Your task to perform on an android device: check data usage Image 0: 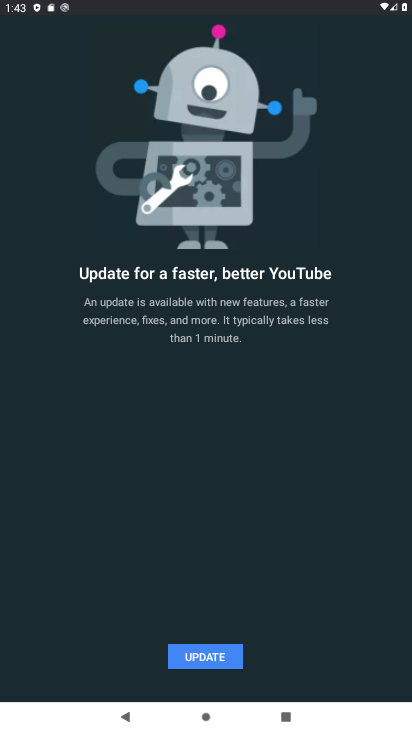
Step 0: press home button
Your task to perform on an android device: check data usage Image 1: 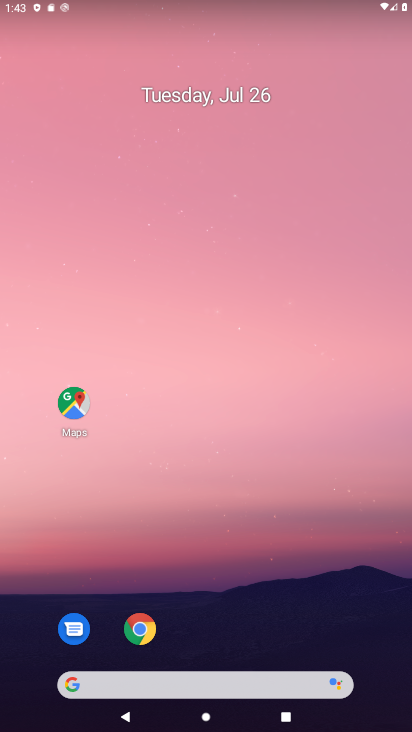
Step 1: drag from (339, 657) to (319, 154)
Your task to perform on an android device: check data usage Image 2: 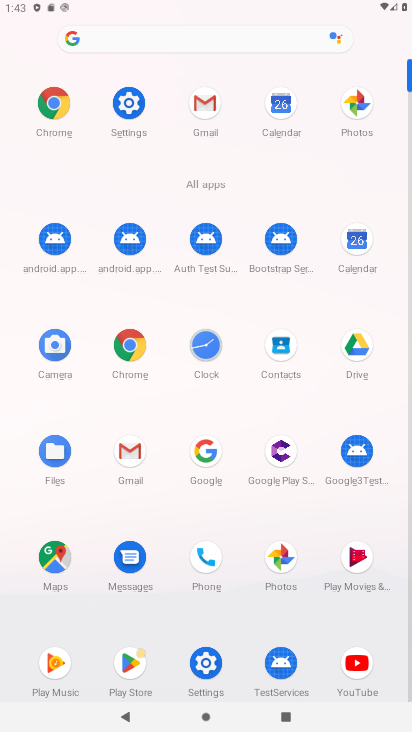
Step 2: click (205, 664)
Your task to perform on an android device: check data usage Image 3: 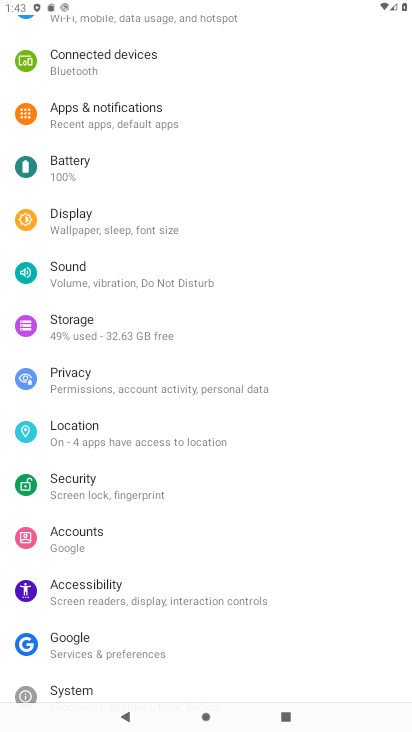
Step 3: drag from (257, 196) to (257, 463)
Your task to perform on an android device: check data usage Image 4: 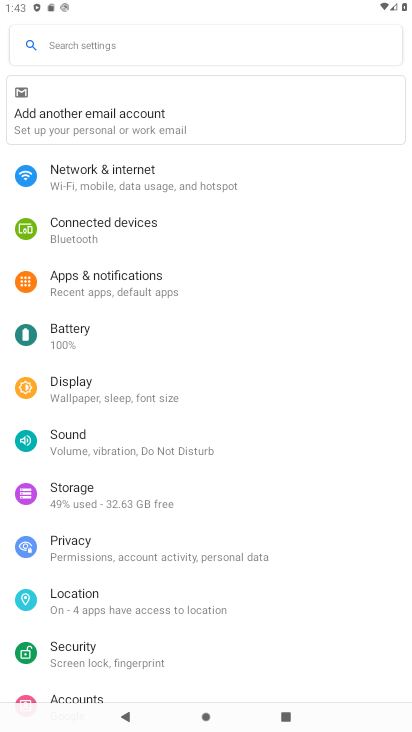
Step 4: click (87, 171)
Your task to perform on an android device: check data usage Image 5: 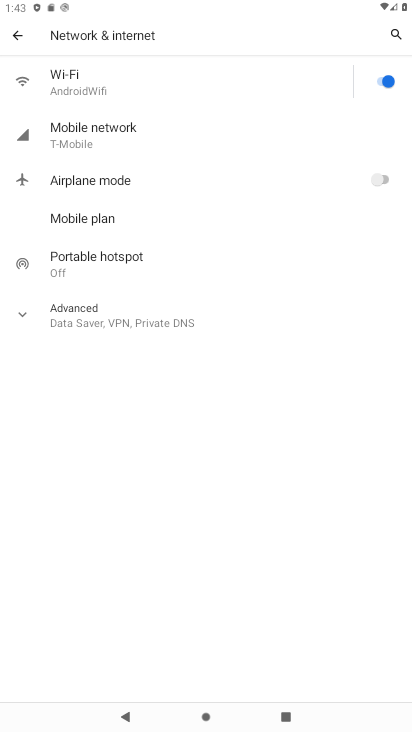
Step 5: click (79, 145)
Your task to perform on an android device: check data usage Image 6: 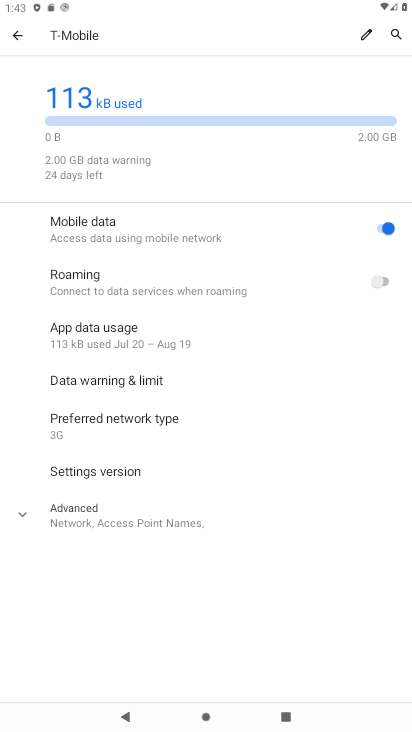
Step 6: click (23, 514)
Your task to perform on an android device: check data usage Image 7: 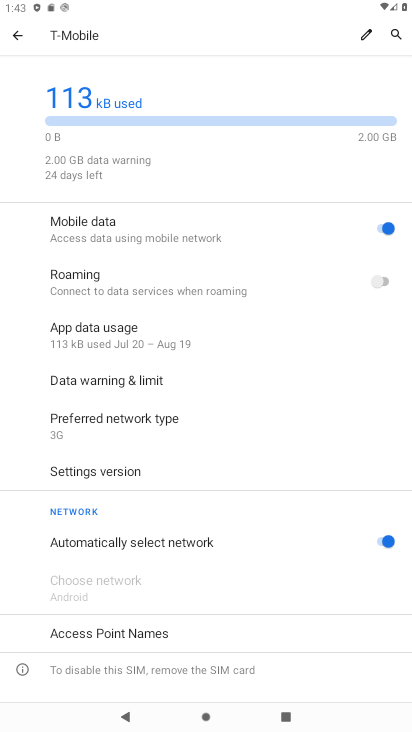
Step 7: task complete